Your task to perform on an android device: open sync settings in chrome Image 0: 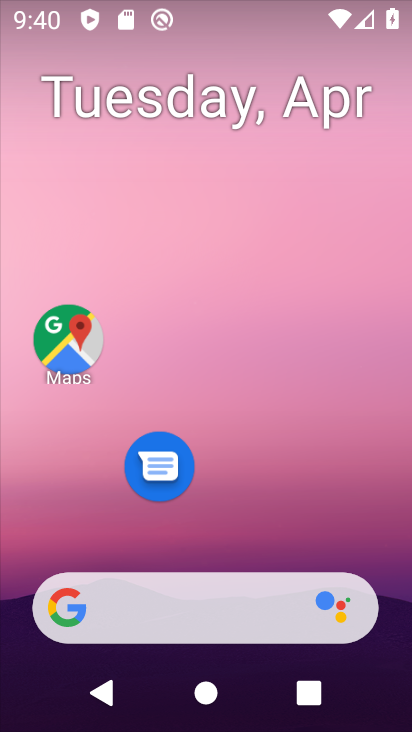
Step 0: drag from (279, 538) to (295, 131)
Your task to perform on an android device: open sync settings in chrome Image 1: 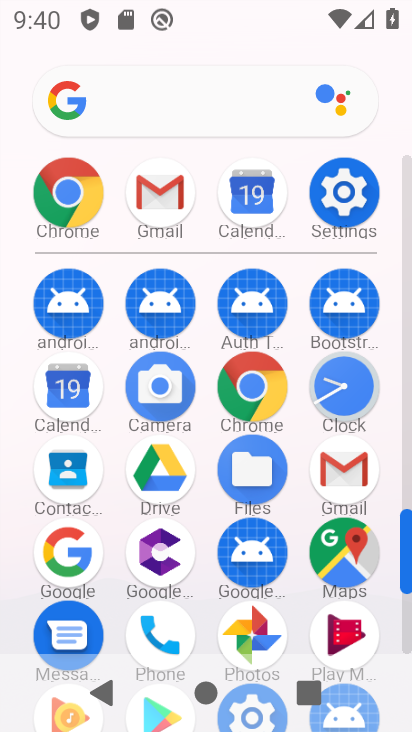
Step 1: click (314, 365)
Your task to perform on an android device: open sync settings in chrome Image 2: 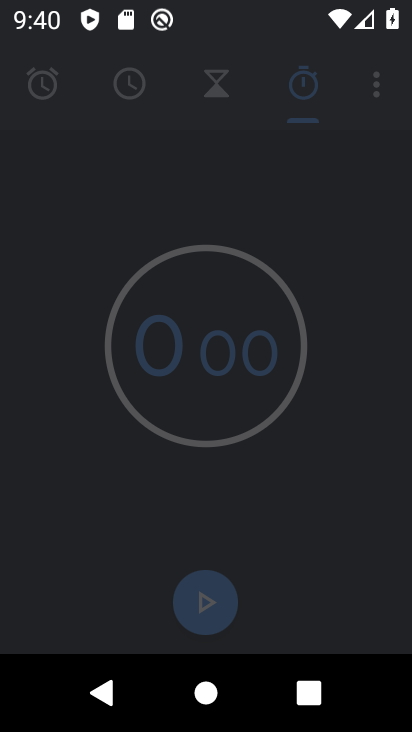
Step 2: click (264, 388)
Your task to perform on an android device: open sync settings in chrome Image 3: 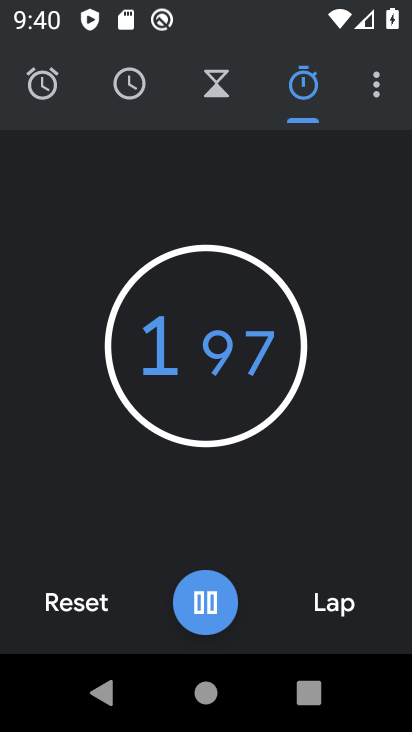
Step 3: press home button
Your task to perform on an android device: open sync settings in chrome Image 4: 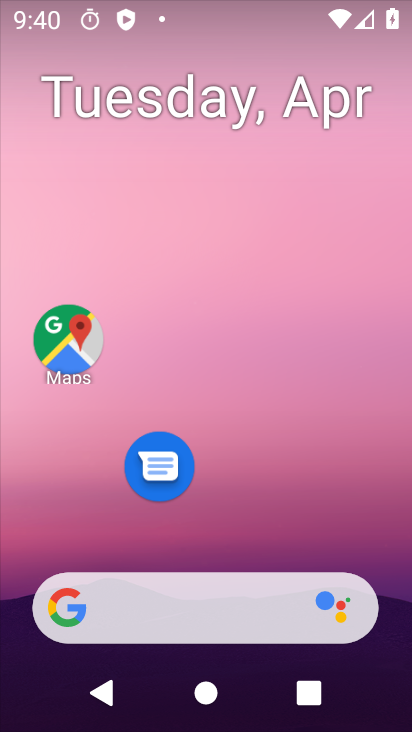
Step 4: drag from (245, 529) to (252, 55)
Your task to perform on an android device: open sync settings in chrome Image 5: 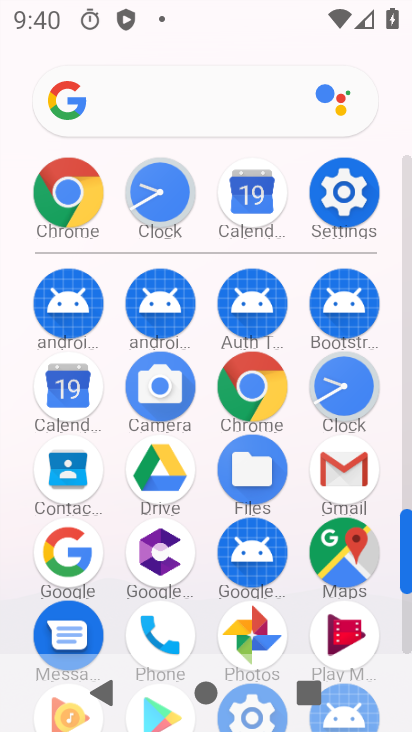
Step 5: click (84, 195)
Your task to perform on an android device: open sync settings in chrome Image 6: 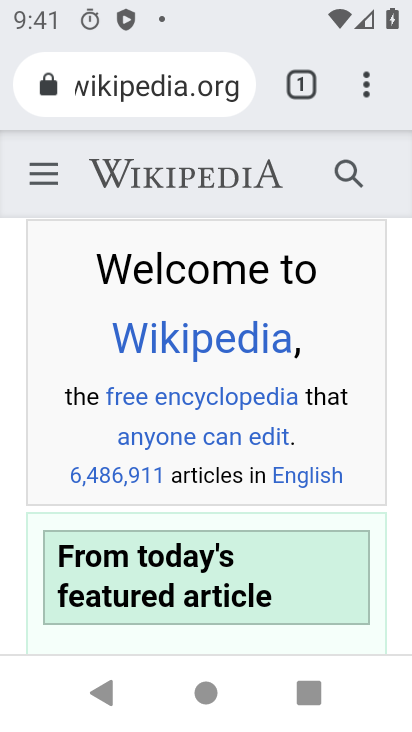
Step 6: click (356, 95)
Your task to perform on an android device: open sync settings in chrome Image 7: 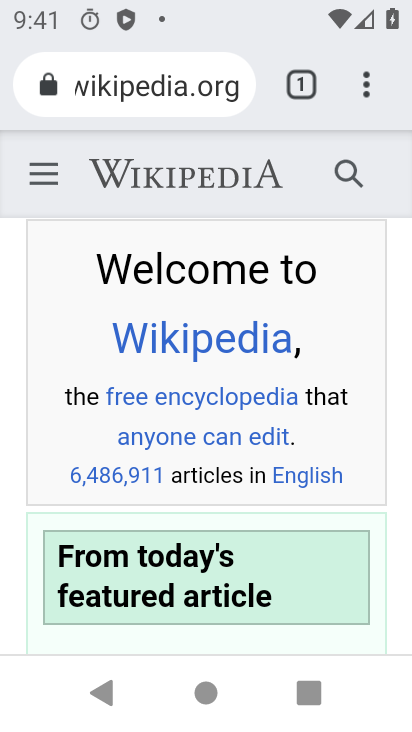
Step 7: click (361, 91)
Your task to perform on an android device: open sync settings in chrome Image 8: 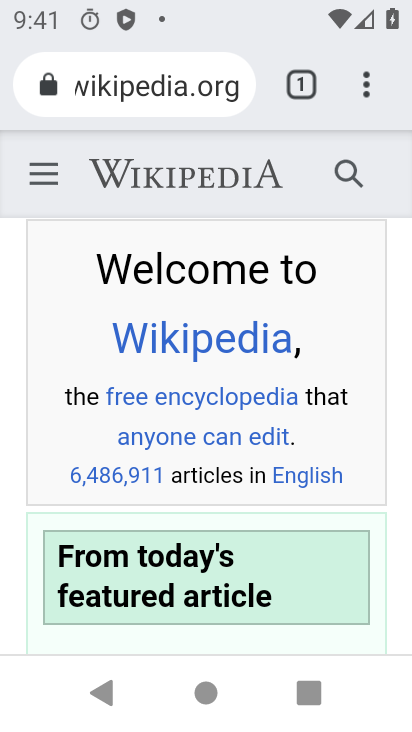
Step 8: click (367, 106)
Your task to perform on an android device: open sync settings in chrome Image 9: 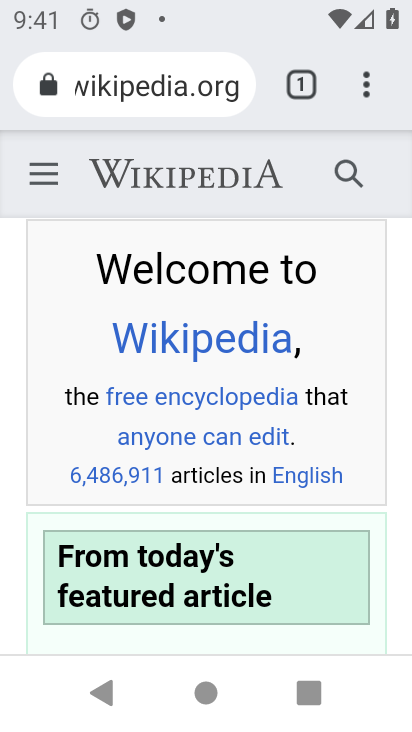
Step 9: click (365, 80)
Your task to perform on an android device: open sync settings in chrome Image 10: 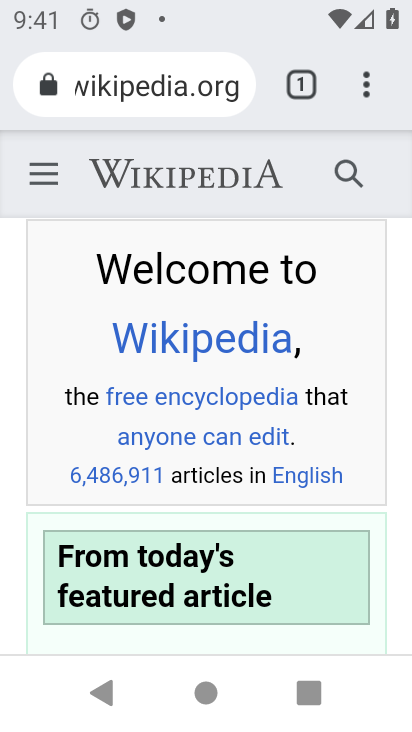
Step 10: click (384, 91)
Your task to perform on an android device: open sync settings in chrome Image 11: 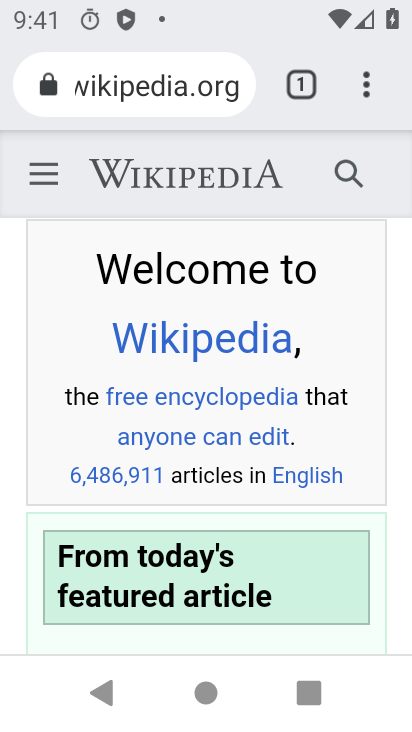
Step 11: click (371, 79)
Your task to perform on an android device: open sync settings in chrome Image 12: 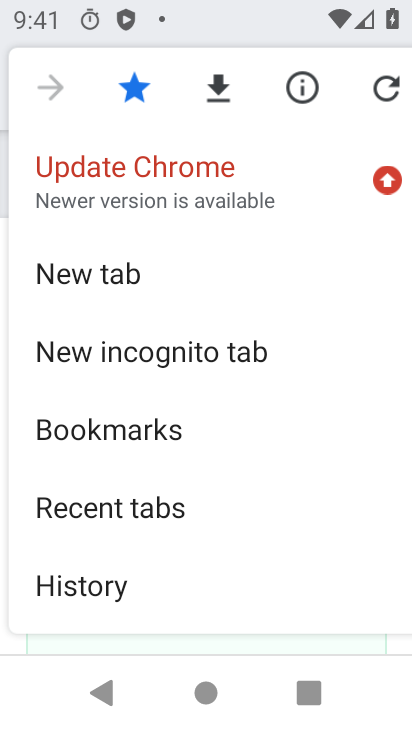
Step 12: drag from (173, 598) to (198, 482)
Your task to perform on an android device: open sync settings in chrome Image 13: 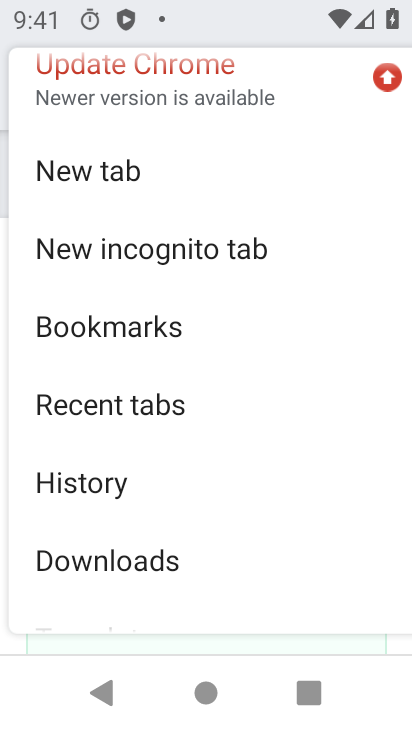
Step 13: drag from (160, 471) to (190, 311)
Your task to perform on an android device: open sync settings in chrome Image 14: 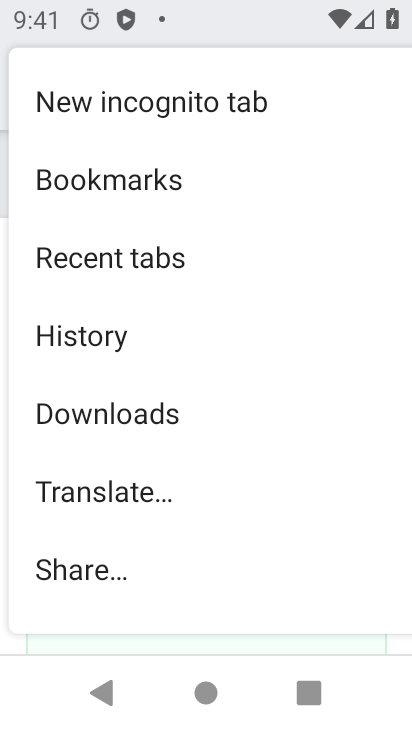
Step 14: drag from (161, 570) to (185, 409)
Your task to perform on an android device: open sync settings in chrome Image 15: 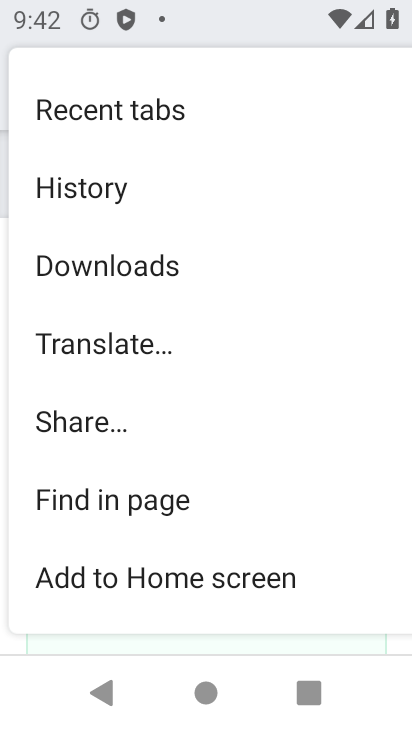
Step 15: drag from (178, 523) to (157, 305)
Your task to perform on an android device: open sync settings in chrome Image 16: 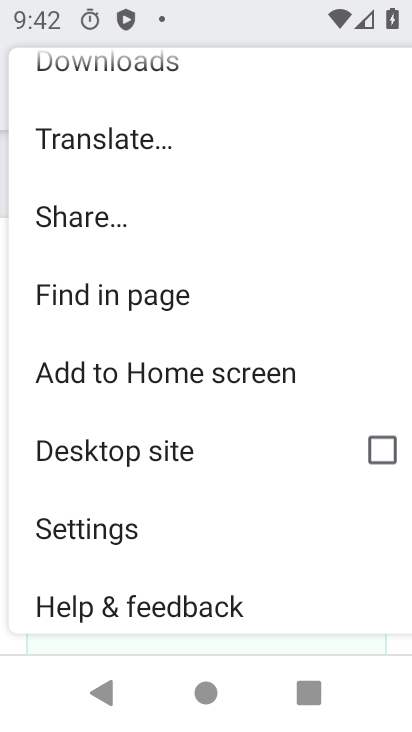
Step 16: drag from (191, 583) to (205, 380)
Your task to perform on an android device: open sync settings in chrome Image 17: 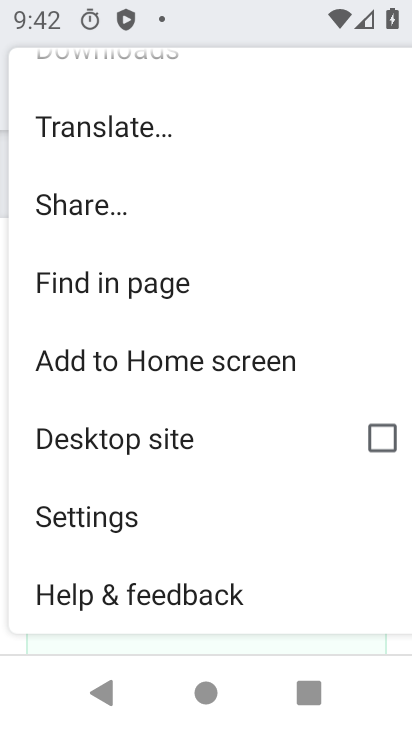
Step 17: click (181, 498)
Your task to perform on an android device: open sync settings in chrome Image 18: 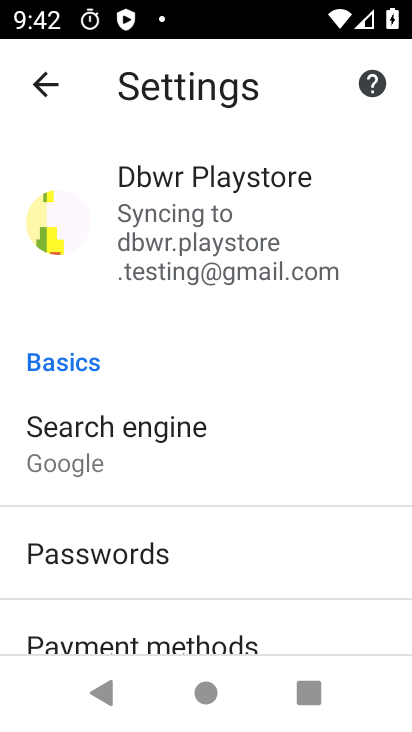
Step 18: drag from (277, 572) to (270, 194)
Your task to perform on an android device: open sync settings in chrome Image 19: 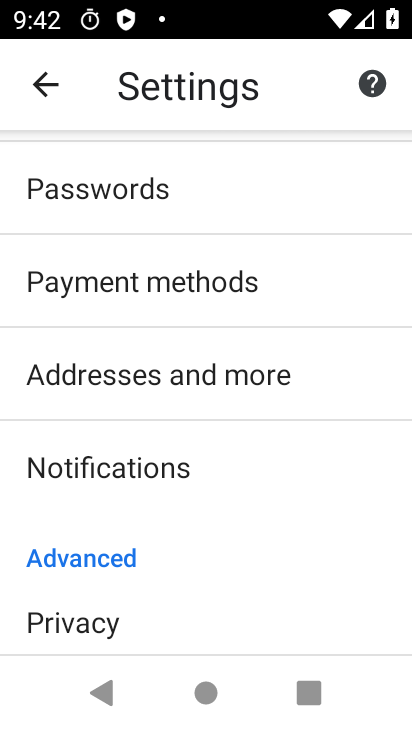
Step 19: drag from (241, 569) to (277, 336)
Your task to perform on an android device: open sync settings in chrome Image 20: 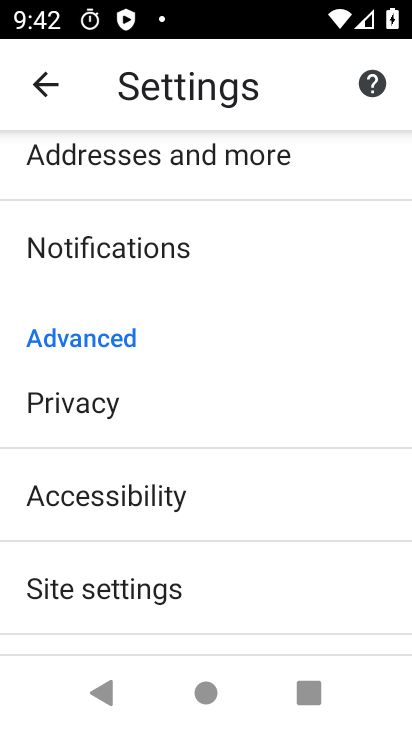
Step 20: drag from (256, 343) to (250, 551)
Your task to perform on an android device: open sync settings in chrome Image 21: 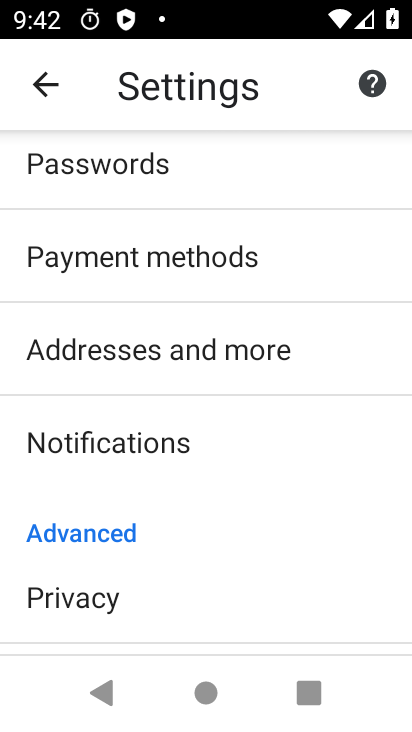
Step 21: drag from (237, 305) to (246, 645)
Your task to perform on an android device: open sync settings in chrome Image 22: 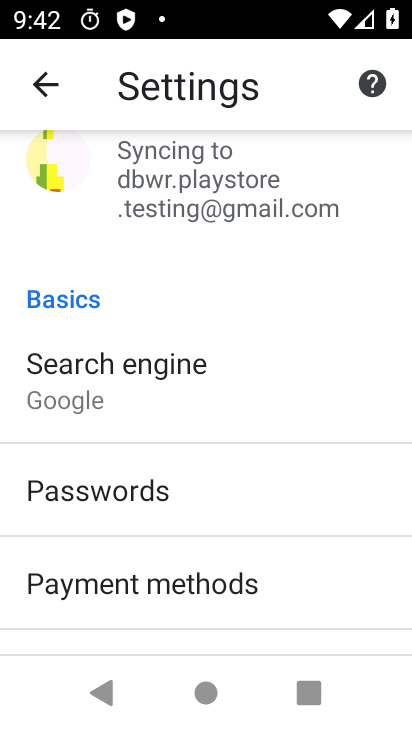
Step 22: drag from (265, 335) to (249, 510)
Your task to perform on an android device: open sync settings in chrome Image 23: 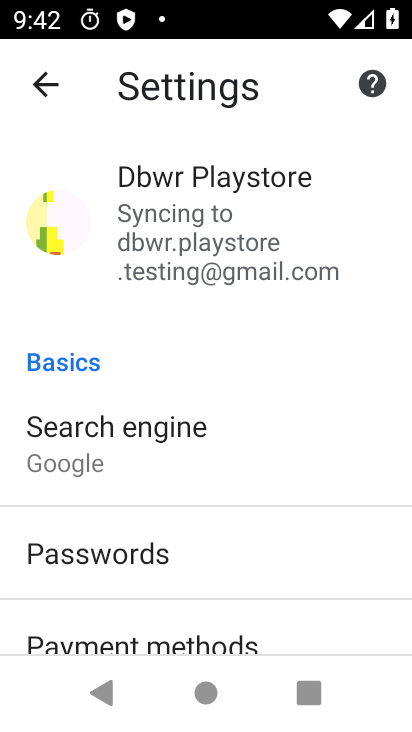
Step 23: click (236, 274)
Your task to perform on an android device: open sync settings in chrome Image 24: 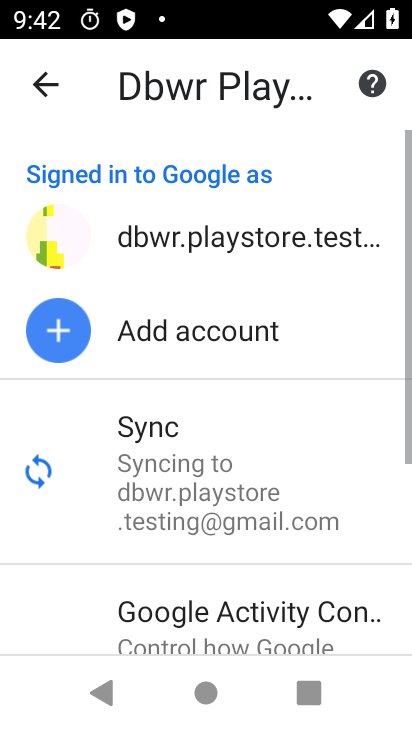
Step 24: press back button
Your task to perform on an android device: open sync settings in chrome Image 25: 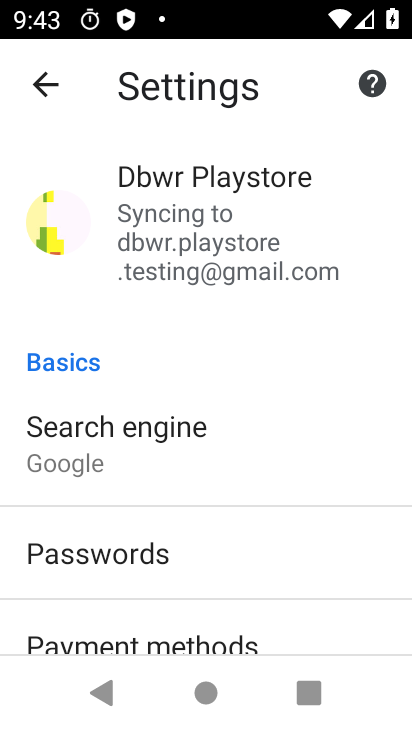
Step 25: drag from (270, 483) to (254, 194)
Your task to perform on an android device: open sync settings in chrome Image 26: 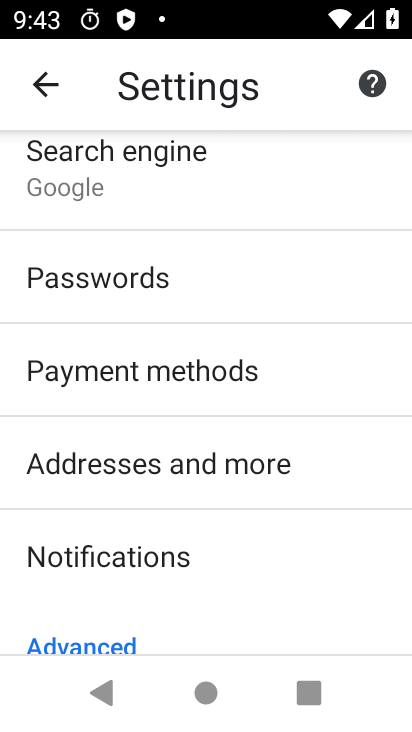
Step 26: drag from (236, 594) to (240, 345)
Your task to perform on an android device: open sync settings in chrome Image 27: 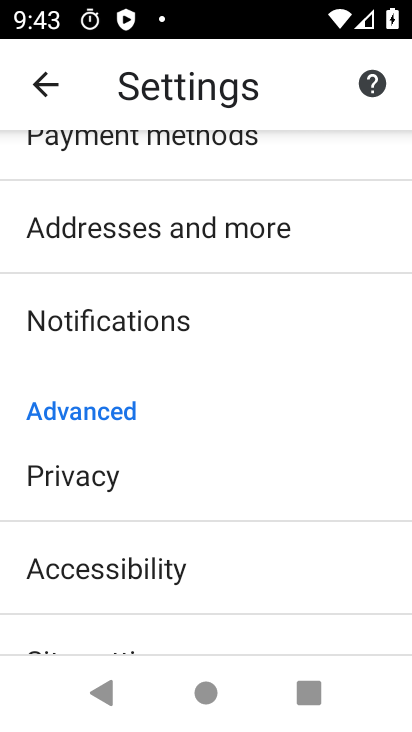
Step 27: drag from (230, 520) to (207, 615)
Your task to perform on an android device: open sync settings in chrome Image 28: 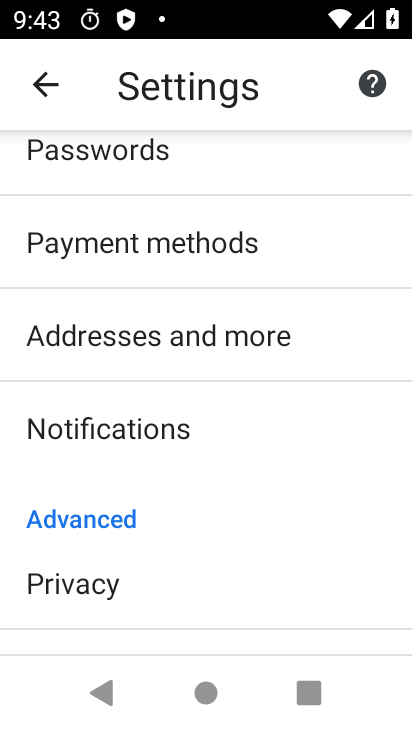
Step 28: drag from (225, 235) to (218, 570)
Your task to perform on an android device: open sync settings in chrome Image 29: 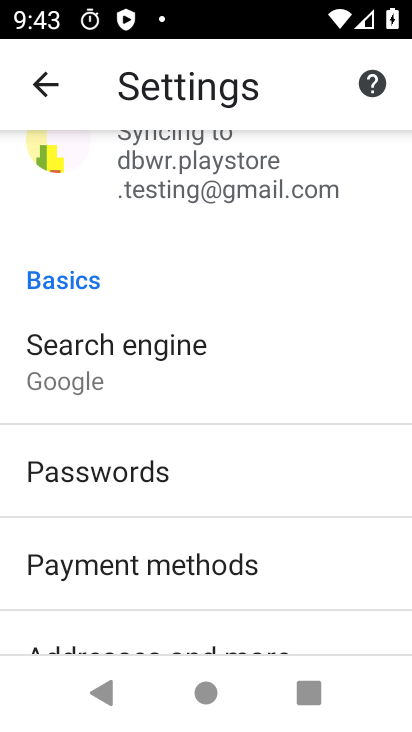
Step 29: click (236, 208)
Your task to perform on an android device: open sync settings in chrome Image 30: 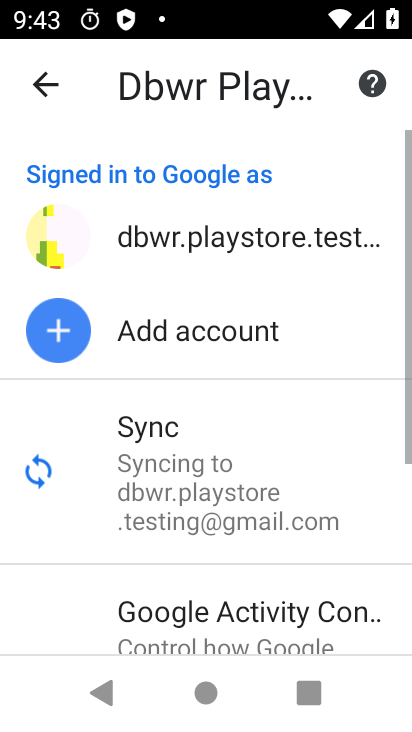
Step 30: task complete